Your task to perform on an android device: turn off smart reply in the gmail app Image 0: 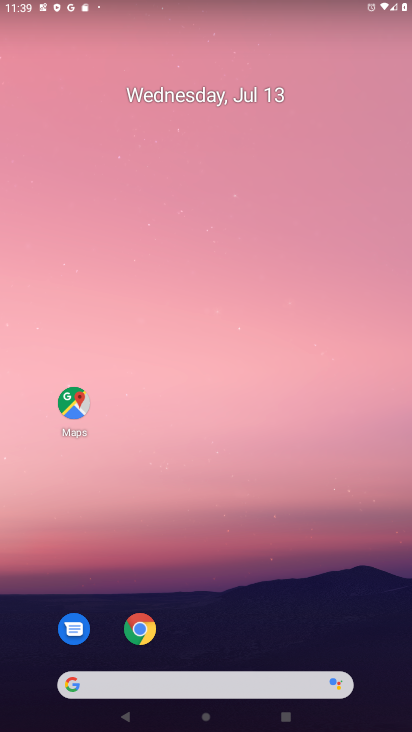
Step 0: drag from (288, 616) to (237, 222)
Your task to perform on an android device: turn off smart reply in the gmail app Image 1: 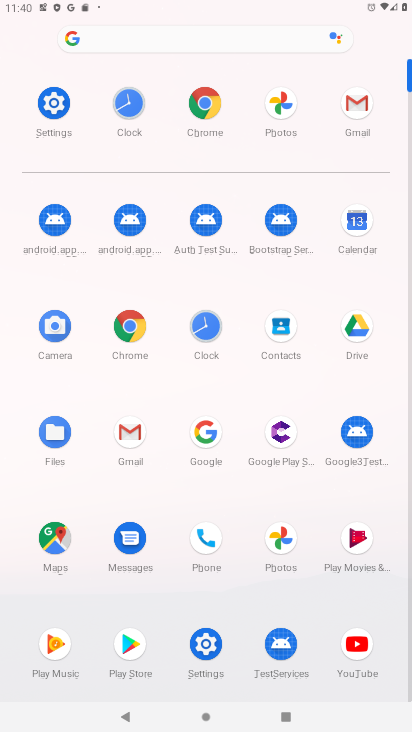
Step 1: click (138, 433)
Your task to perform on an android device: turn off smart reply in the gmail app Image 2: 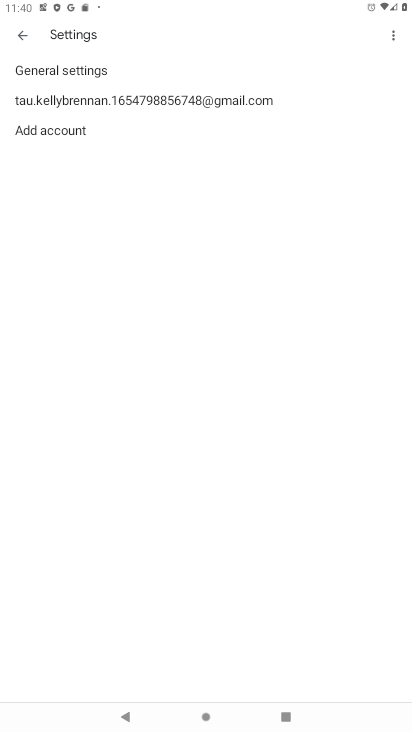
Step 2: click (125, 107)
Your task to perform on an android device: turn off smart reply in the gmail app Image 3: 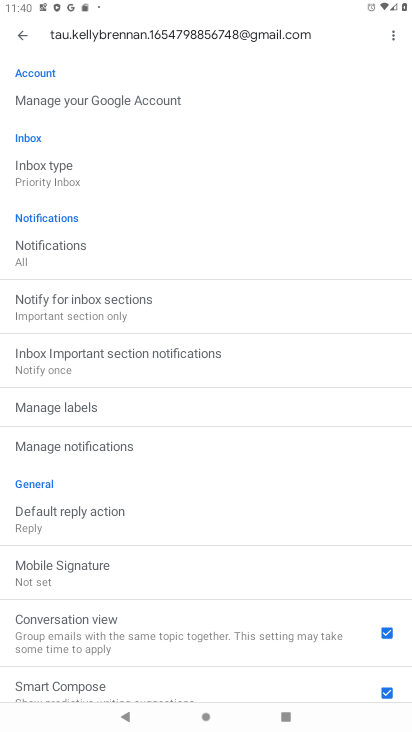
Step 3: drag from (212, 587) to (254, 352)
Your task to perform on an android device: turn off smart reply in the gmail app Image 4: 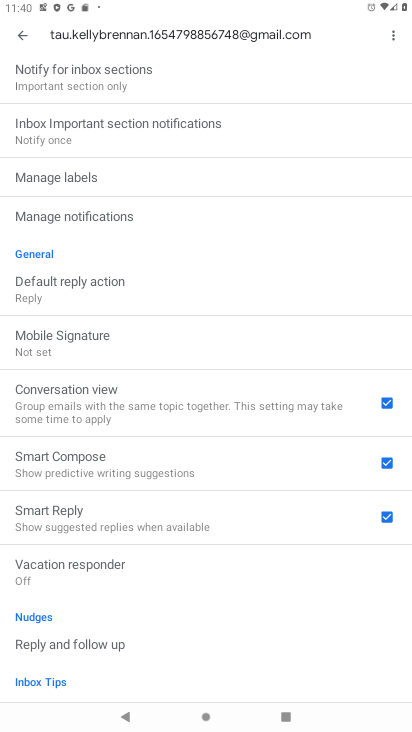
Step 4: click (376, 513)
Your task to perform on an android device: turn off smart reply in the gmail app Image 5: 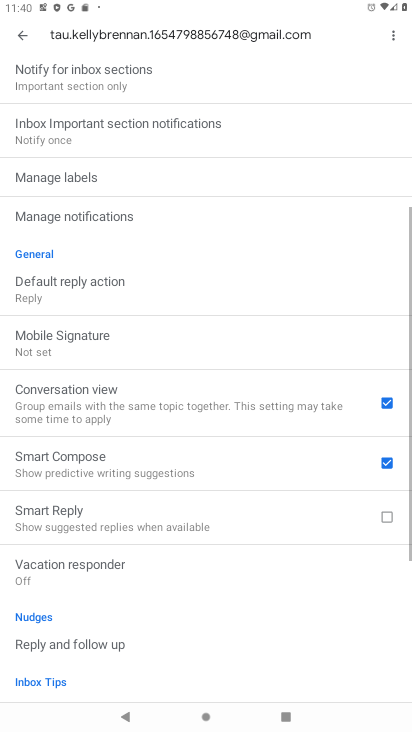
Step 5: task complete